Your task to perform on an android device: toggle javascript in the chrome app Image 0: 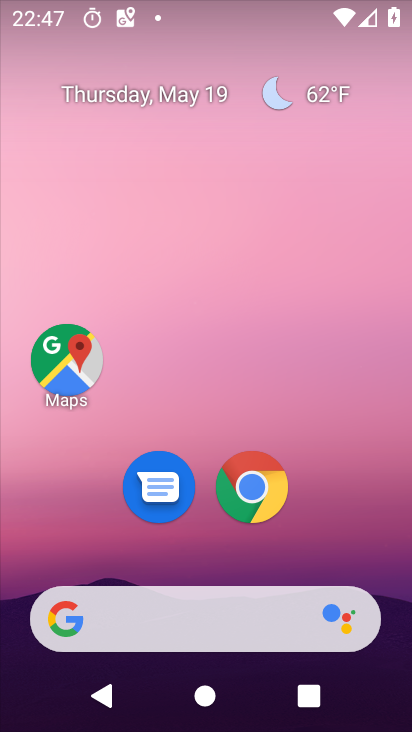
Step 0: click (253, 492)
Your task to perform on an android device: toggle javascript in the chrome app Image 1: 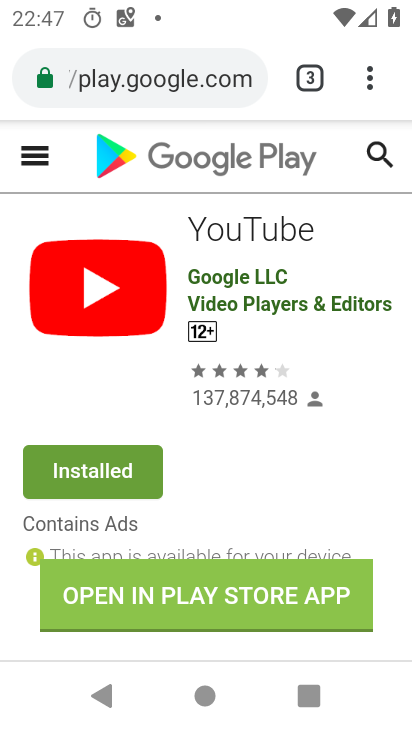
Step 1: click (378, 74)
Your task to perform on an android device: toggle javascript in the chrome app Image 2: 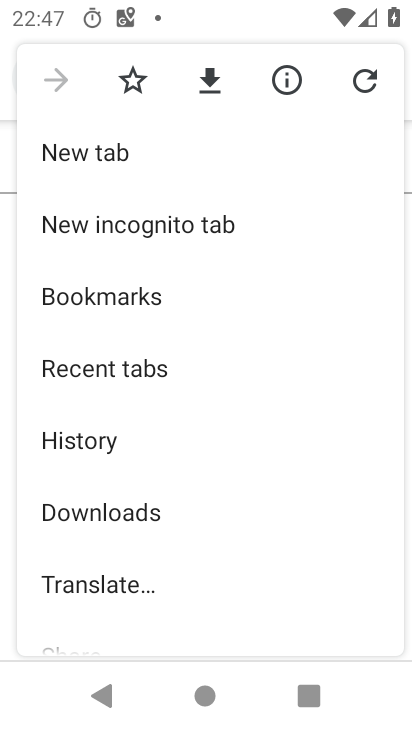
Step 2: drag from (264, 571) to (206, 314)
Your task to perform on an android device: toggle javascript in the chrome app Image 3: 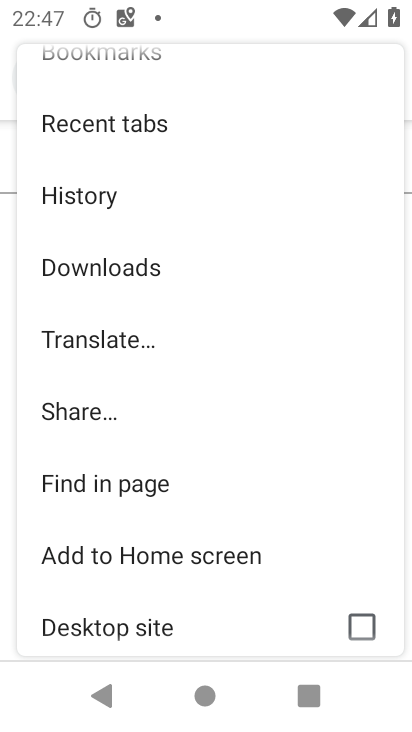
Step 3: drag from (183, 604) to (148, 292)
Your task to perform on an android device: toggle javascript in the chrome app Image 4: 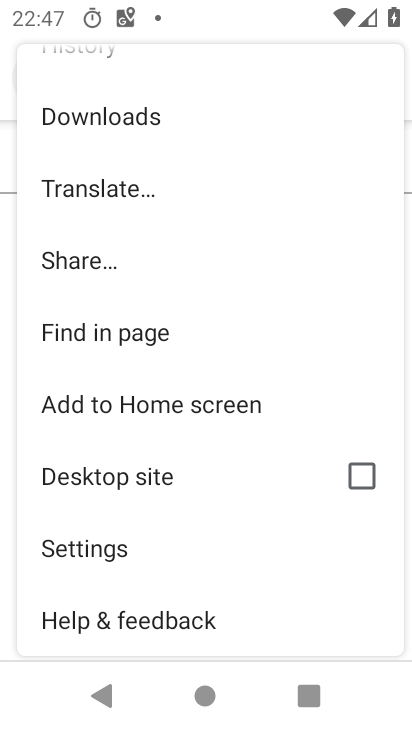
Step 4: click (117, 556)
Your task to perform on an android device: toggle javascript in the chrome app Image 5: 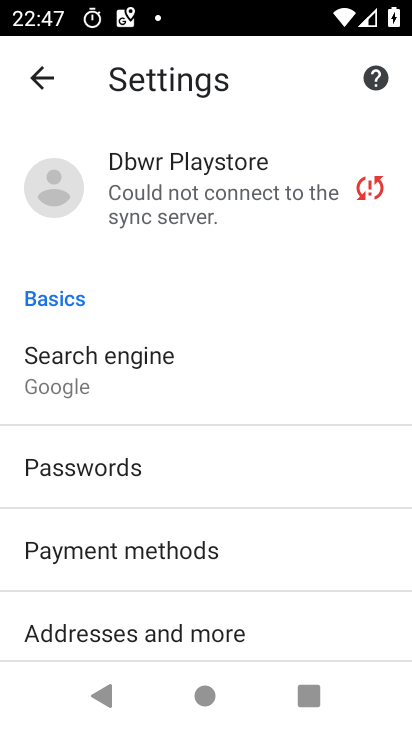
Step 5: drag from (299, 577) to (265, 314)
Your task to perform on an android device: toggle javascript in the chrome app Image 6: 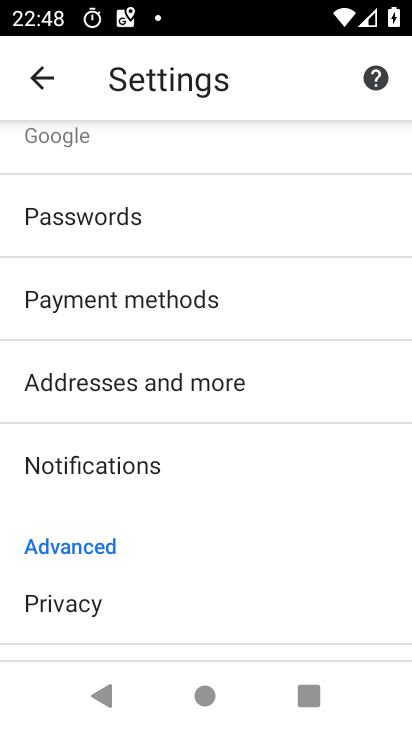
Step 6: drag from (296, 590) to (255, 226)
Your task to perform on an android device: toggle javascript in the chrome app Image 7: 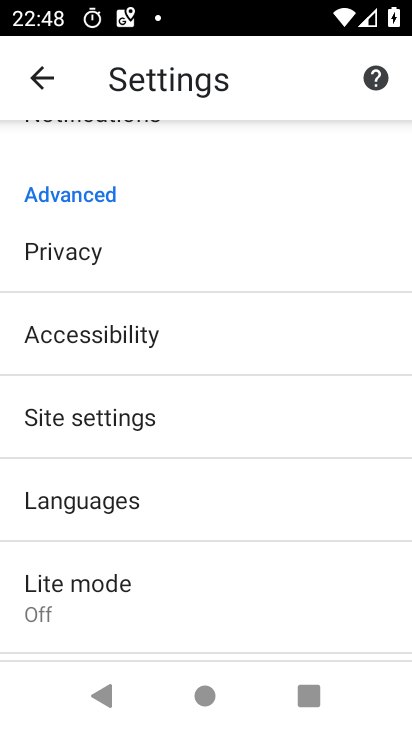
Step 7: click (166, 411)
Your task to perform on an android device: toggle javascript in the chrome app Image 8: 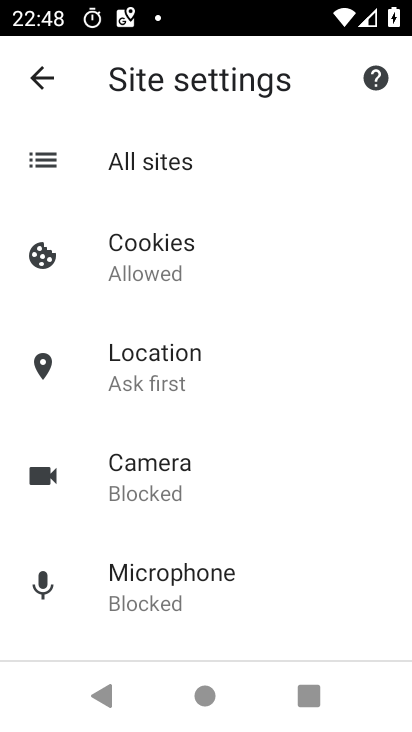
Step 8: drag from (328, 553) to (287, 221)
Your task to perform on an android device: toggle javascript in the chrome app Image 9: 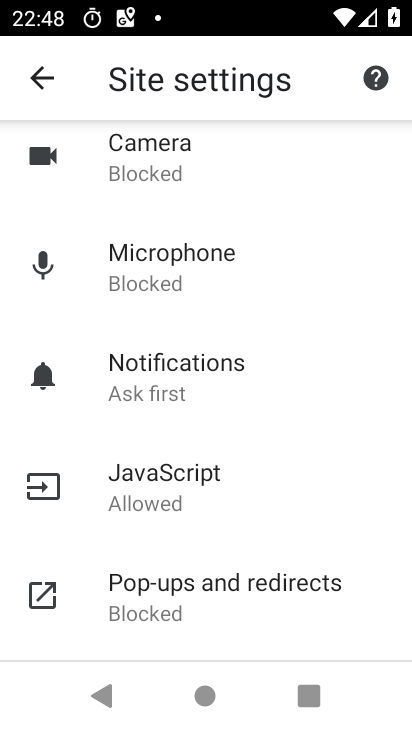
Step 9: click (206, 489)
Your task to perform on an android device: toggle javascript in the chrome app Image 10: 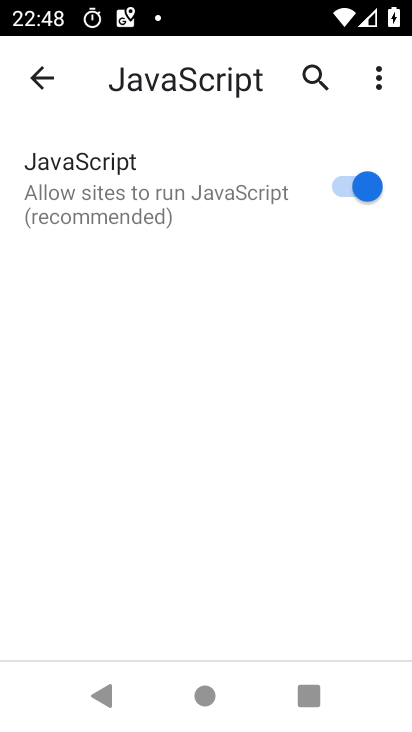
Step 10: click (344, 183)
Your task to perform on an android device: toggle javascript in the chrome app Image 11: 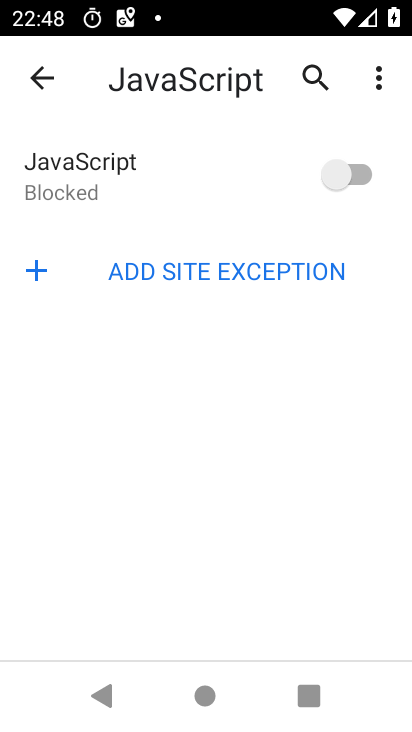
Step 11: task complete